Your task to perform on an android device: Show me popular games on the Play Store Image 0: 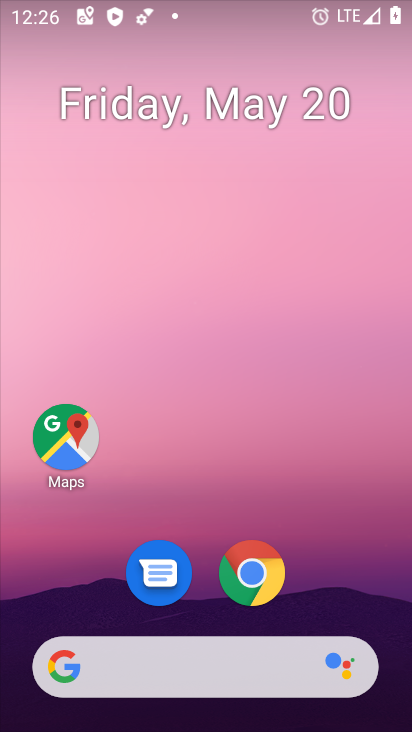
Step 0: drag from (209, 608) to (206, 105)
Your task to perform on an android device: Show me popular games on the Play Store Image 1: 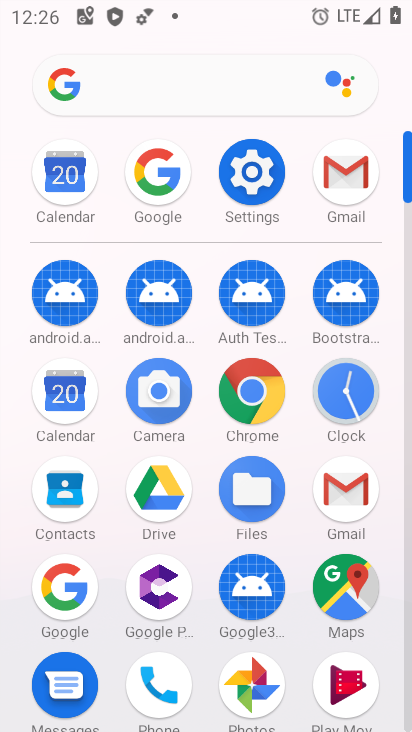
Step 1: drag from (167, 629) to (167, 336)
Your task to perform on an android device: Show me popular games on the Play Store Image 2: 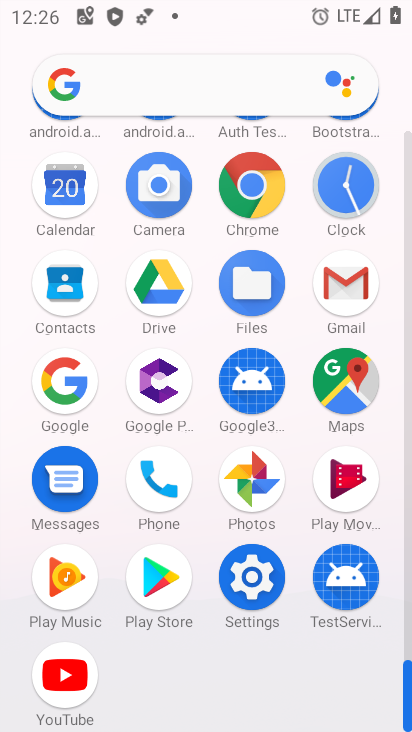
Step 2: click (169, 582)
Your task to perform on an android device: Show me popular games on the Play Store Image 3: 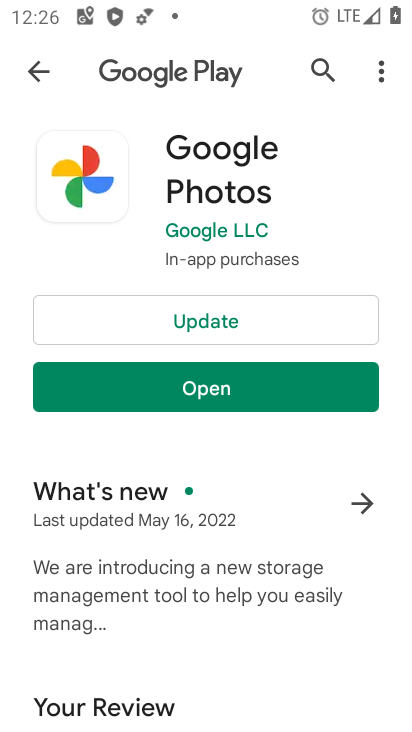
Step 3: click (36, 65)
Your task to perform on an android device: Show me popular games on the Play Store Image 4: 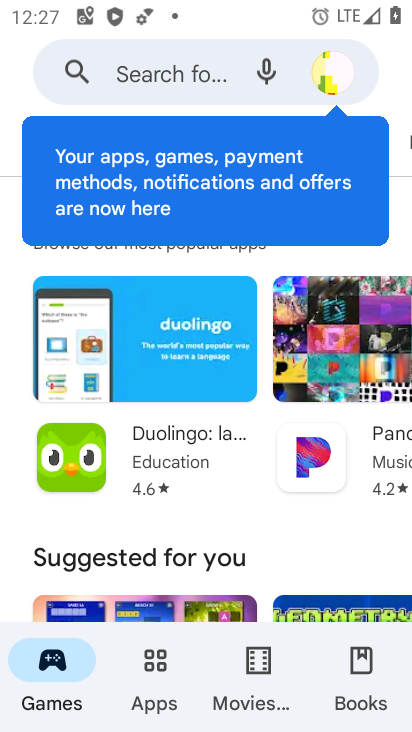
Step 4: click (140, 198)
Your task to perform on an android device: Show me popular games on the Play Store Image 5: 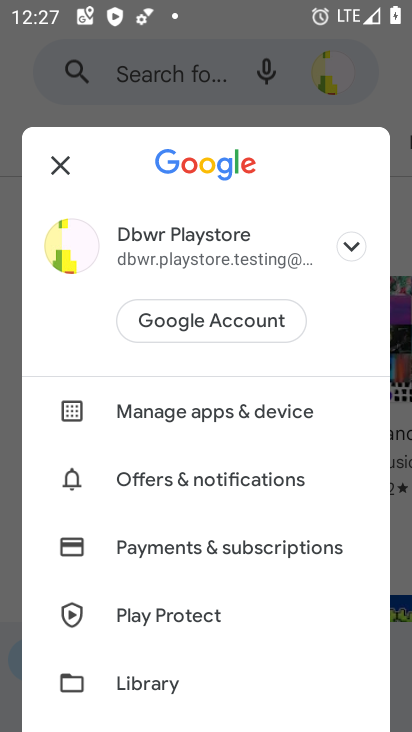
Step 5: click (58, 148)
Your task to perform on an android device: Show me popular games on the Play Store Image 6: 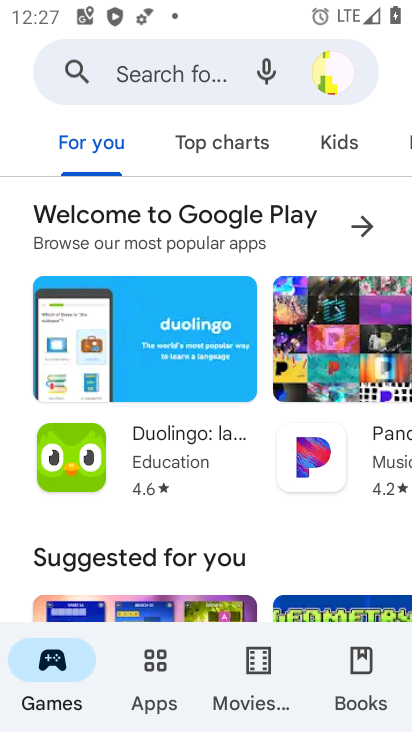
Step 6: click (241, 142)
Your task to perform on an android device: Show me popular games on the Play Store Image 7: 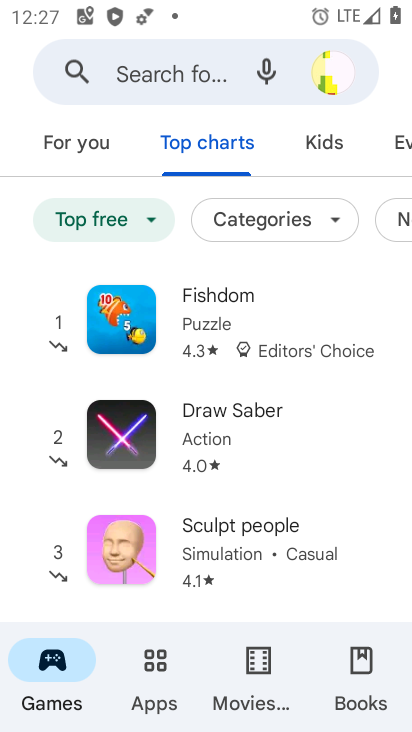
Step 7: task complete